Your task to perform on an android device: Open network settings Image 0: 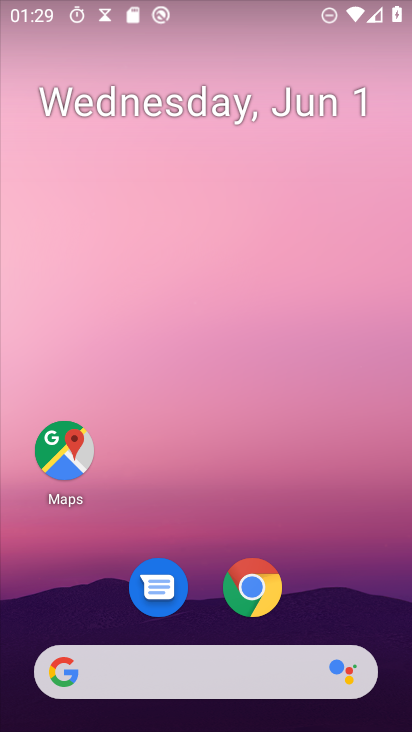
Step 0: drag from (339, 607) to (341, 31)
Your task to perform on an android device: Open network settings Image 1: 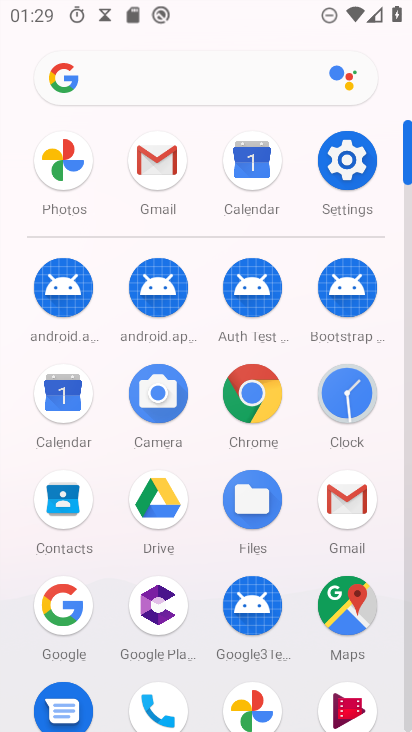
Step 1: click (364, 157)
Your task to perform on an android device: Open network settings Image 2: 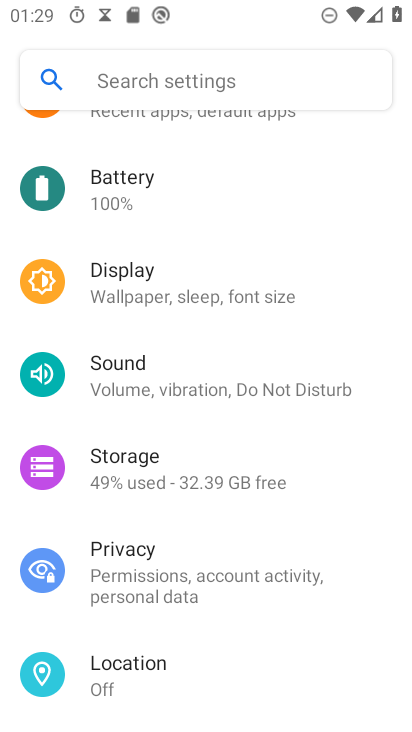
Step 2: drag from (188, 294) to (260, 714)
Your task to perform on an android device: Open network settings Image 3: 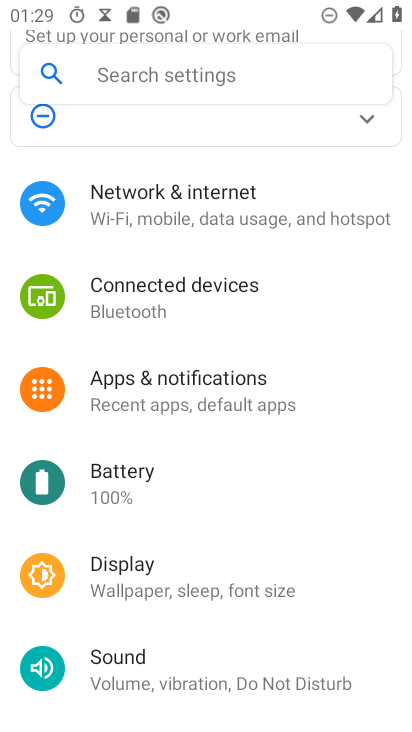
Step 3: click (188, 205)
Your task to perform on an android device: Open network settings Image 4: 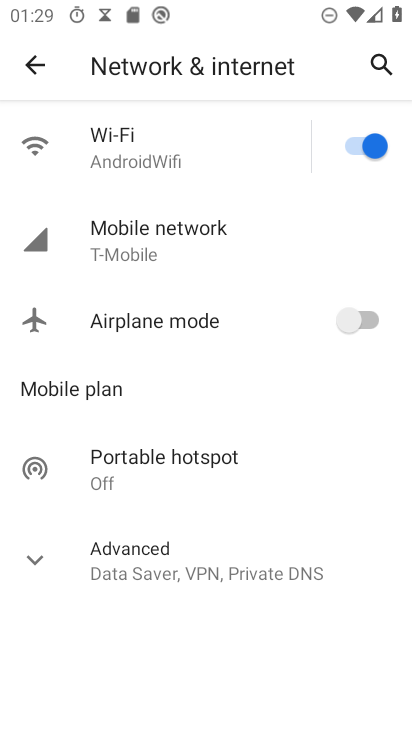
Step 4: click (210, 231)
Your task to perform on an android device: Open network settings Image 5: 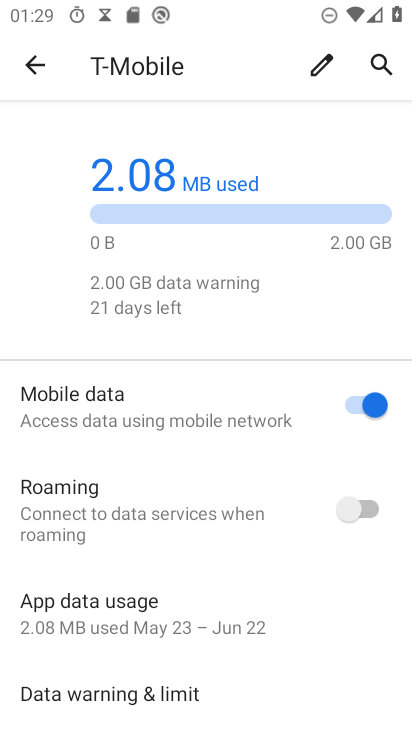
Step 5: task complete